Your task to perform on an android device: turn on translation in the chrome app Image 0: 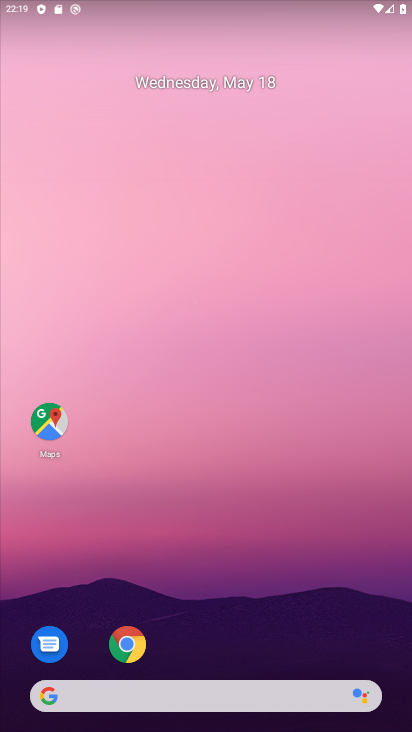
Step 0: click (125, 638)
Your task to perform on an android device: turn on translation in the chrome app Image 1: 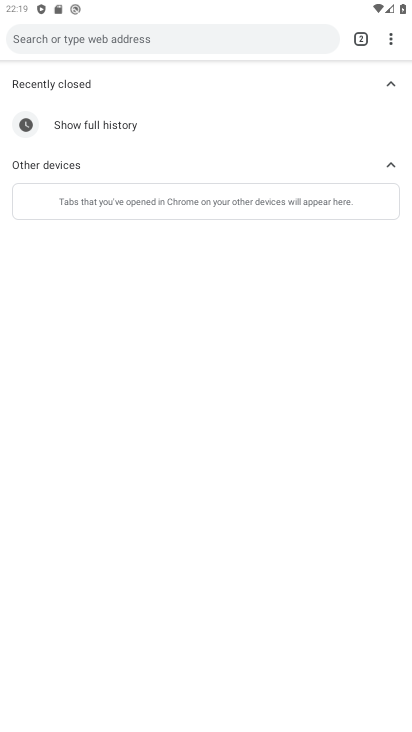
Step 1: drag from (394, 35) to (250, 330)
Your task to perform on an android device: turn on translation in the chrome app Image 2: 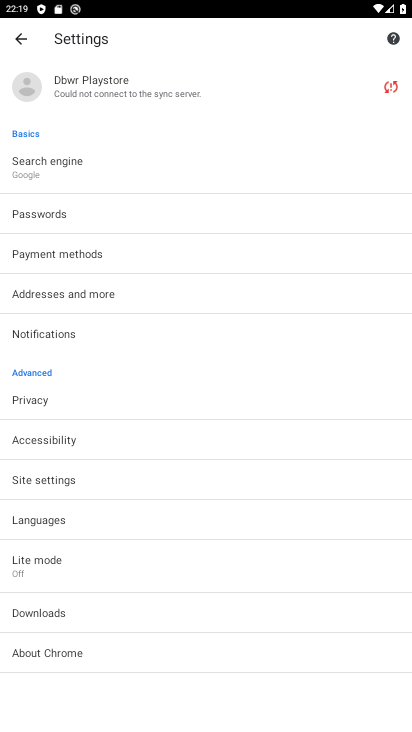
Step 2: click (56, 517)
Your task to perform on an android device: turn on translation in the chrome app Image 3: 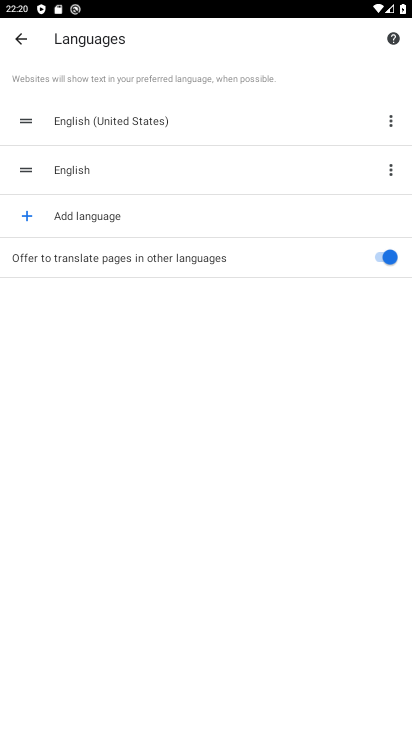
Step 3: task complete